Your task to perform on an android device: Open notification settings Image 0: 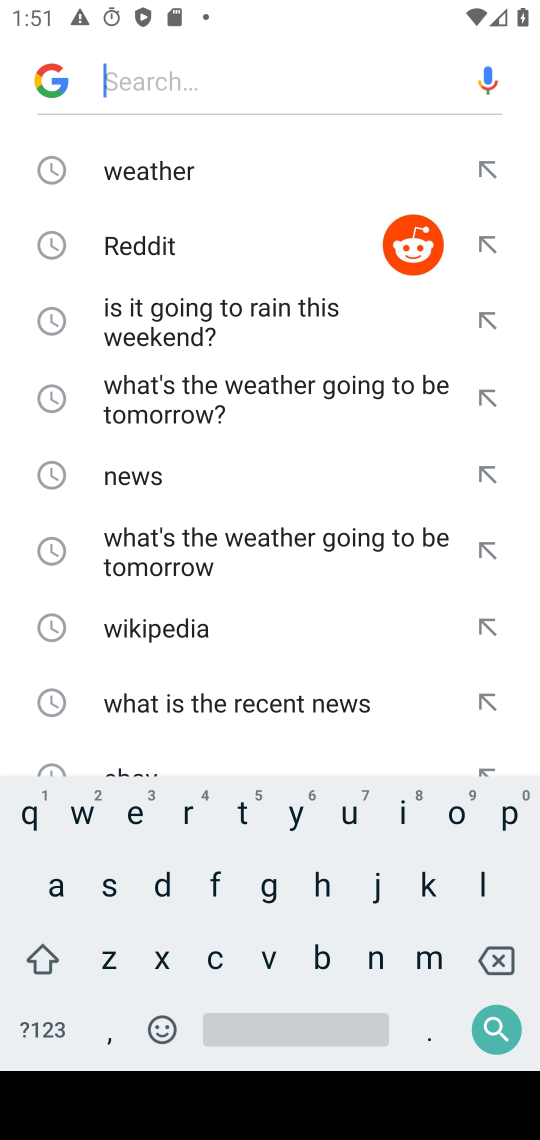
Step 0: press home button
Your task to perform on an android device: Open notification settings Image 1: 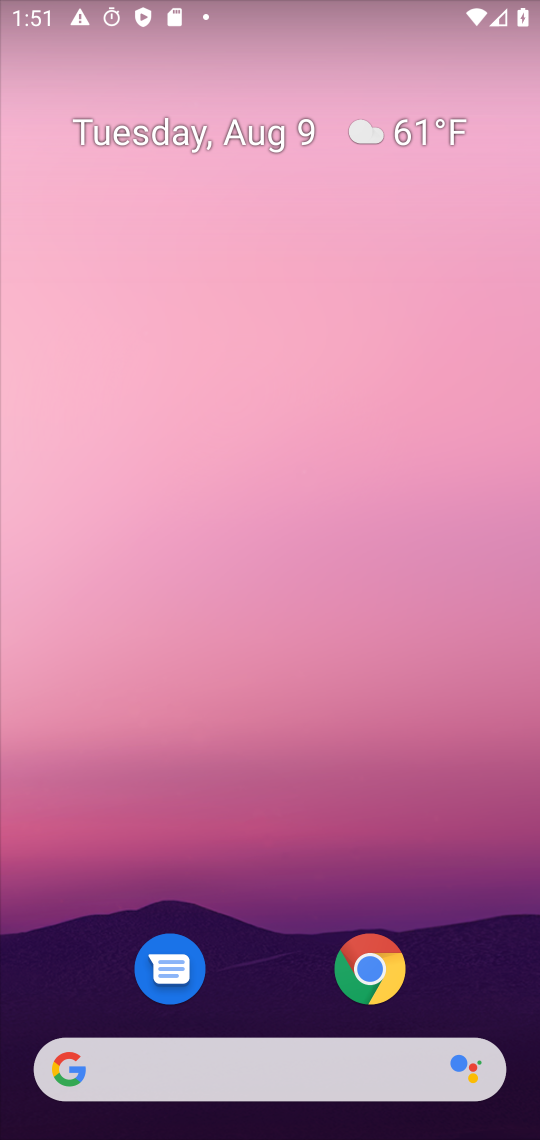
Step 1: drag from (332, 1099) to (195, 424)
Your task to perform on an android device: Open notification settings Image 2: 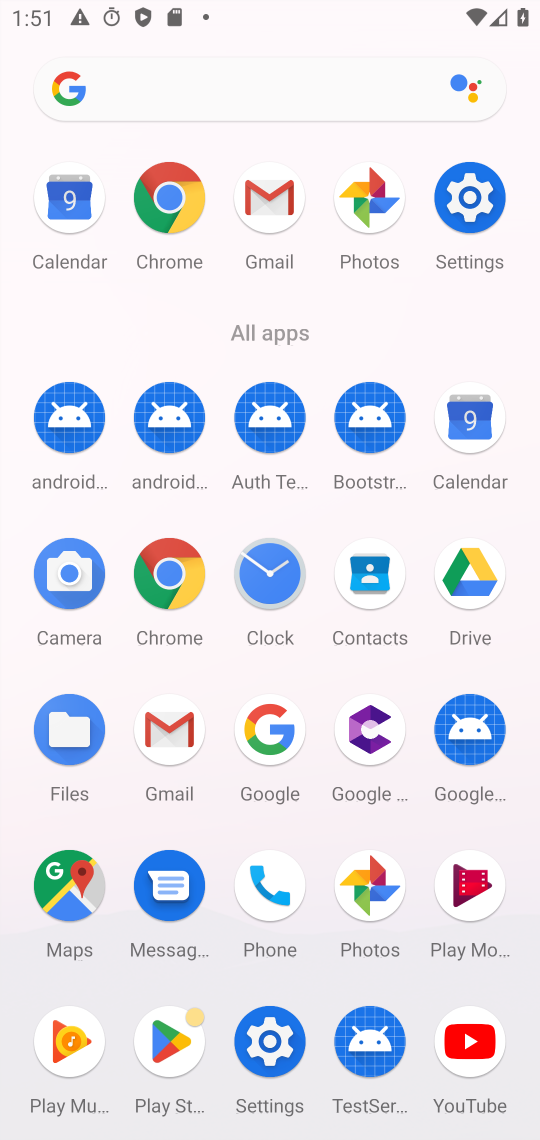
Step 2: click (460, 213)
Your task to perform on an android device: Open notification settings Image 3: 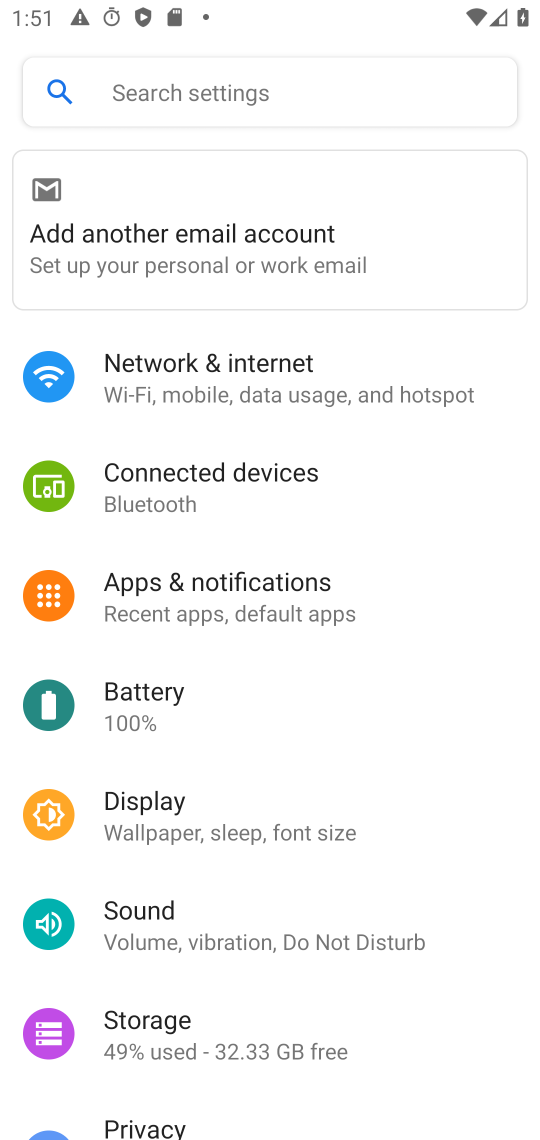
Step 3: click (239, 106)
Your task to perform on an android device: Open notification settings Image 4: 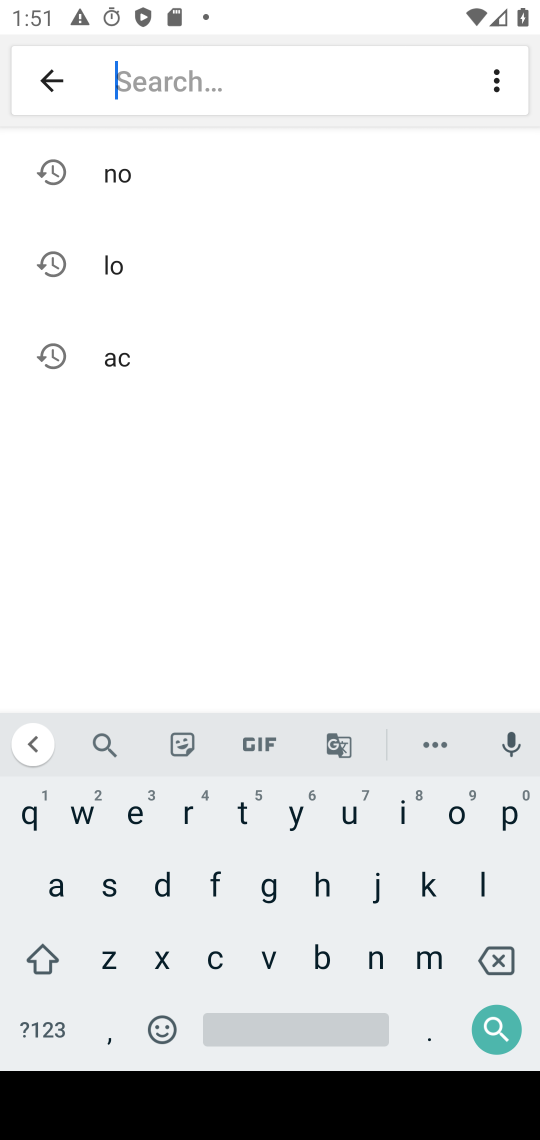
Step 4: click (140, 183)
Your task to perform on an android device: Open notification settings Image 5: 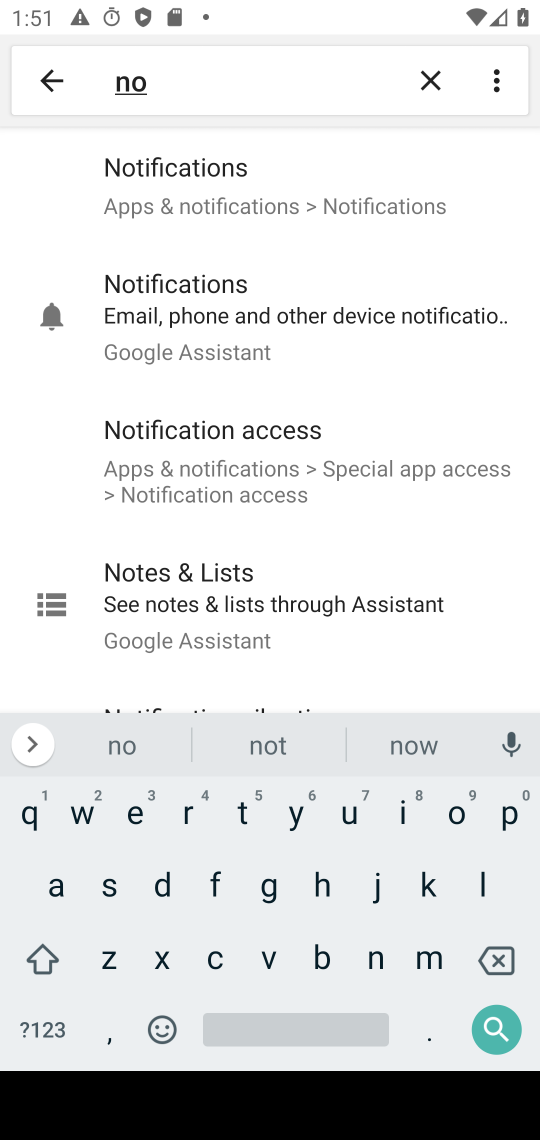
Step 5: click (206, 201)
Your task to perform on an android device: Open notification settings Image 6: 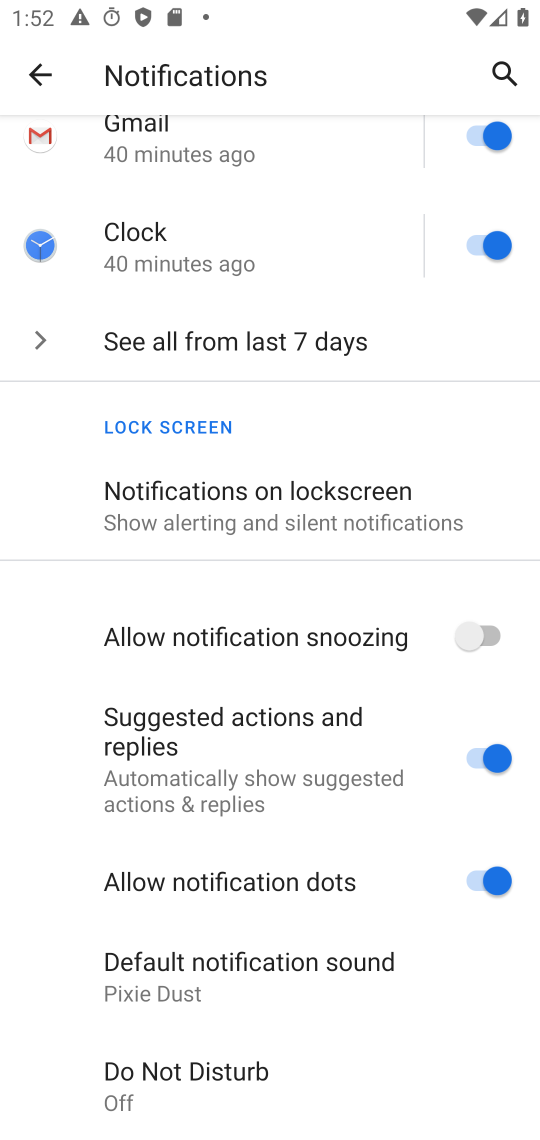
Step 6: click (201, 514)
Your task to perform on an android device: Open notification settings Image 7: 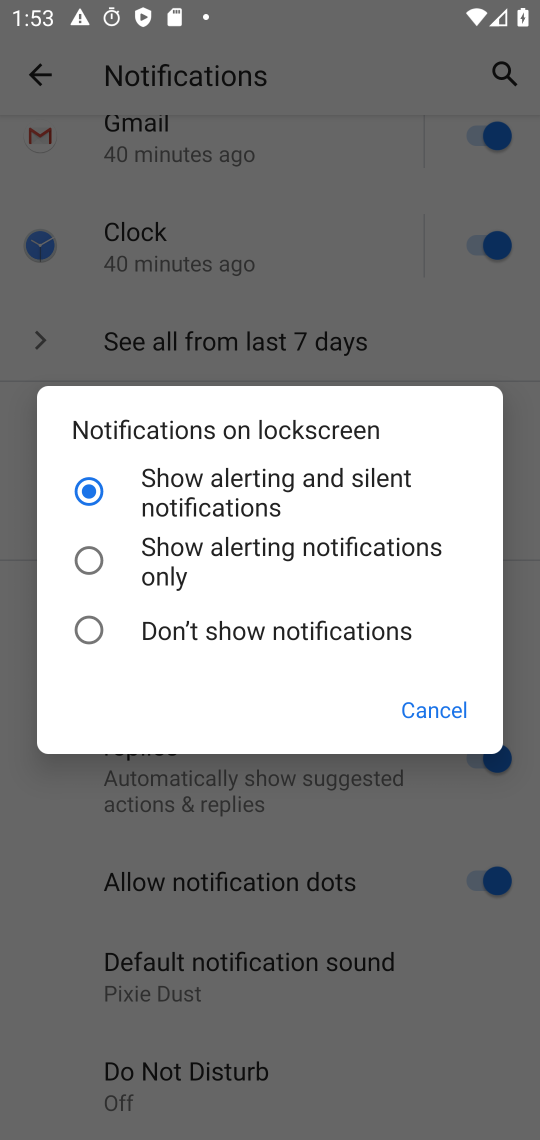
Step 7: task complete